Your task to perform on an android device: What's on my calendar tomorrow? Image 0: 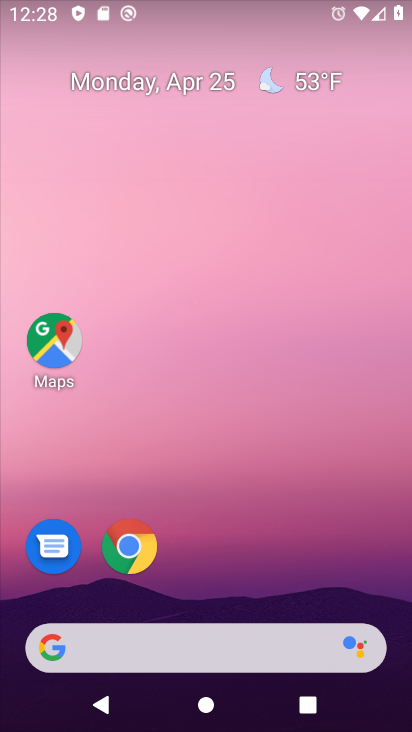
Step 0: drag from (215, 603) to (225, 179)
Your task to perform on an android device: What's on my calendar tomorrow? Image 1: 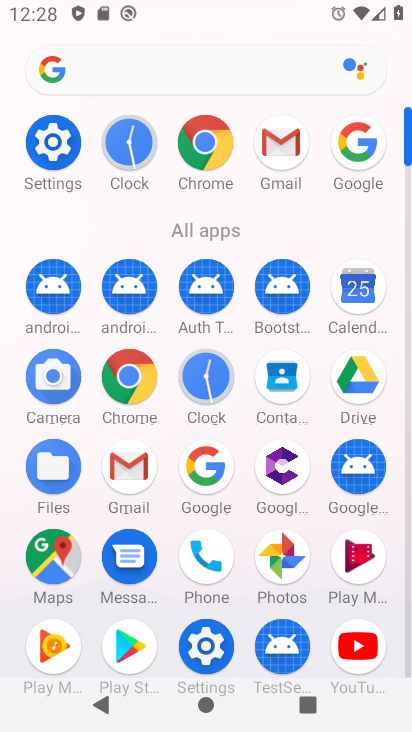
Step 1: click (352, 288)
Your task to perform on an android device: What's on my calendar tomorrow? Image 2: 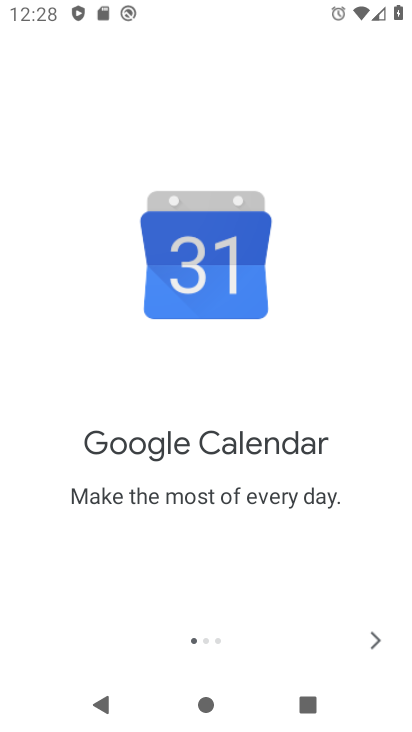
Step 2: click (372, 639)
Your task to perform on an android device: What's on my calendar tomorrow? Image 3: 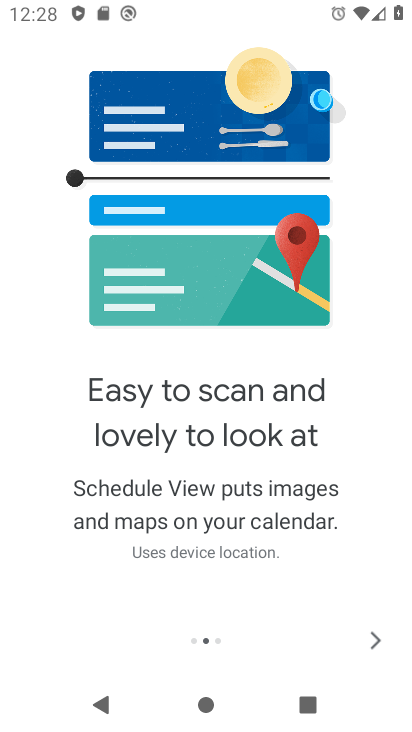
Step 3: click (372, 639)
Your task to perform on an android device: What's on my calendar tomorrow? Image 4: 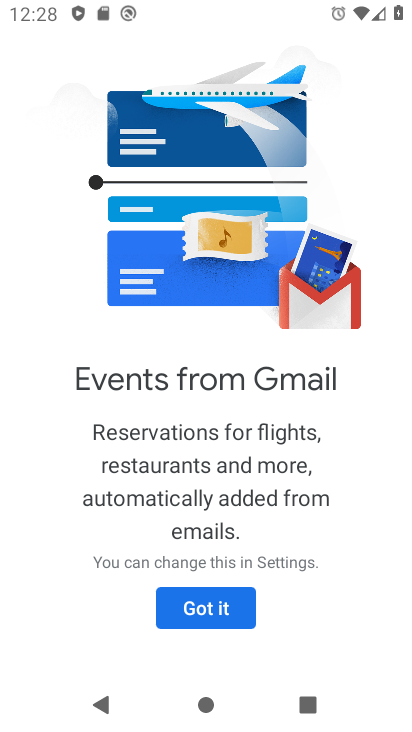
Step 4: click (241, 601)
Your task to perform on an android device: What's on my calendar tomorrow? Image 5: 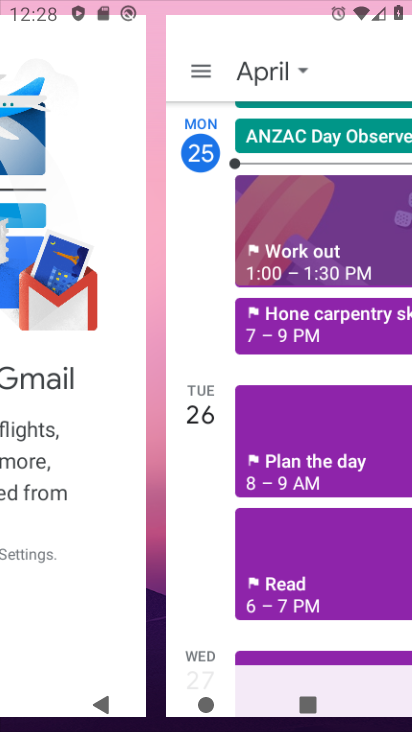
Step 5: click (238, 595)
Your task to perform on an android device: What's on my calendar tomorrow? Image 6: 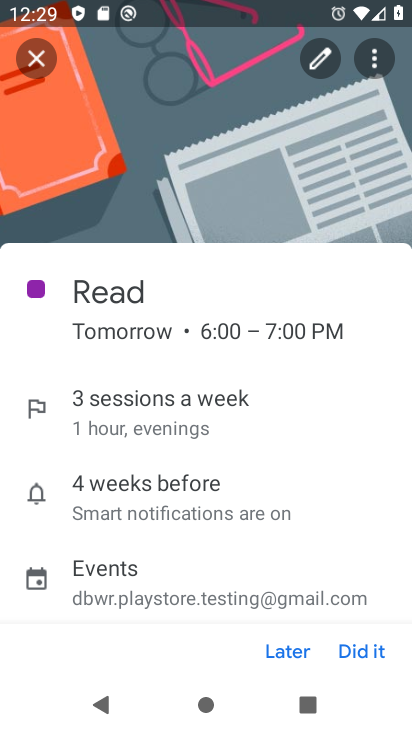
Step 6: click (42, 67)
Your task to perform on an android device: What's on my calendar tomorrow? Image 7: 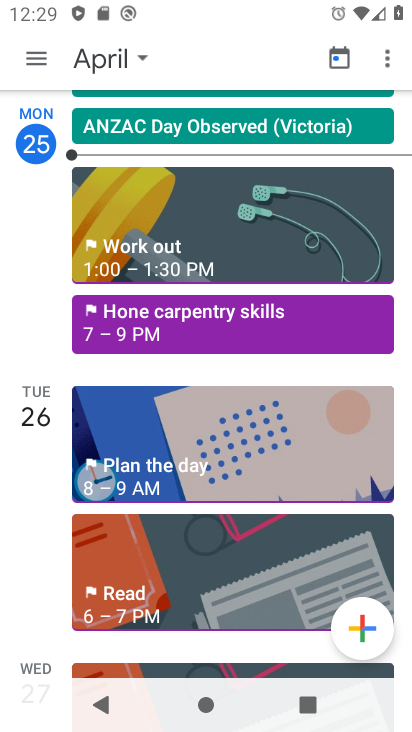
Step 7: click (128, 54)
Your task to perform on an android device: What's on my calendar tomorrow? Image 8: 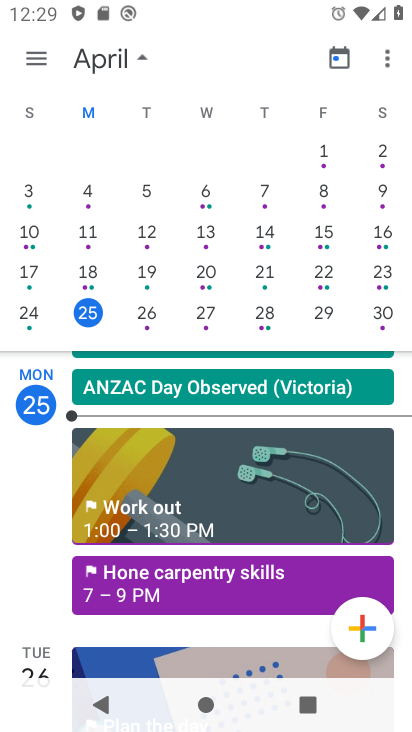
Step 8: click (147, 317)
Your task to perform on an android device: What's on my calendar tomorrow? Image 9: 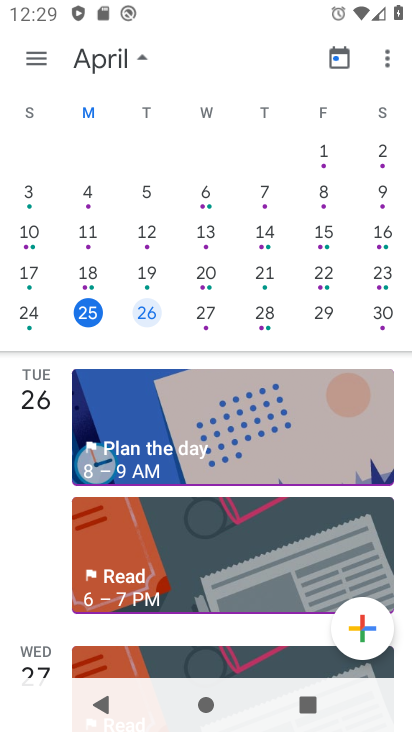
Step 9: task complete